Your task to perform on an android device: turn pop-ups off in chrome Image 0: 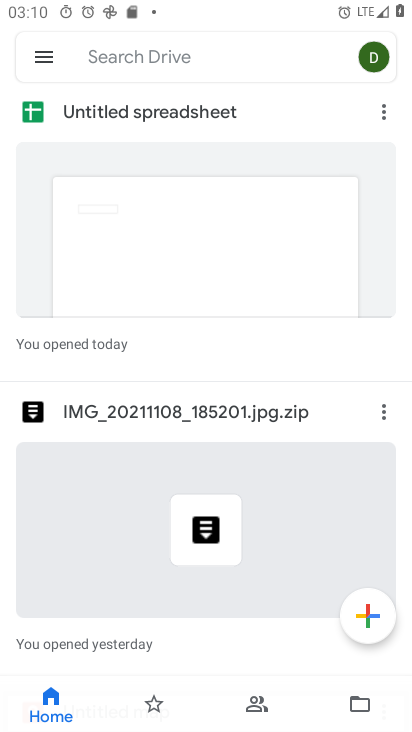
Step 0: press home button
Your task to perform on an android device: turn pop-ups off in chrome Image 1: 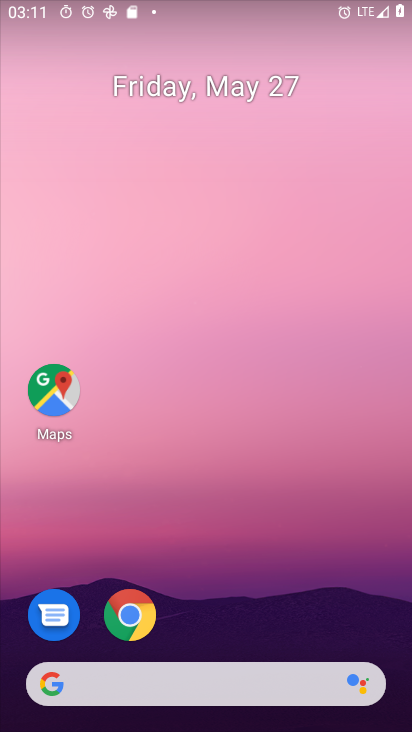
Step 1: drag from (351, 619) to (369, 317)
Your task to perform on an android device: turn pop-ups off in chrome Image 2: 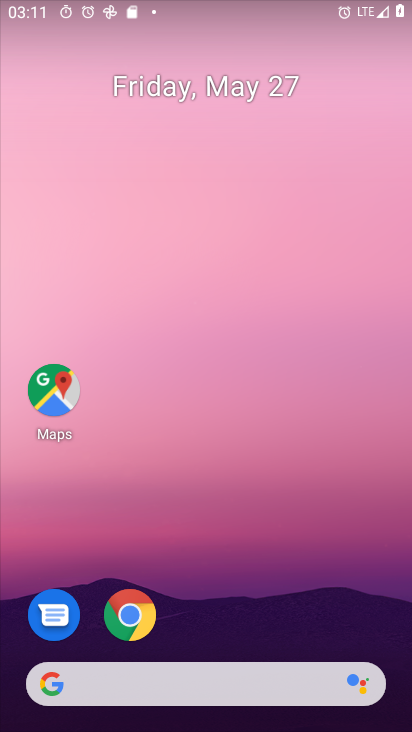
Step 2: drag from (324, 621) to (342, 235)
Your task to perform on an android device: turn pop-ups off in chrome Image 3: 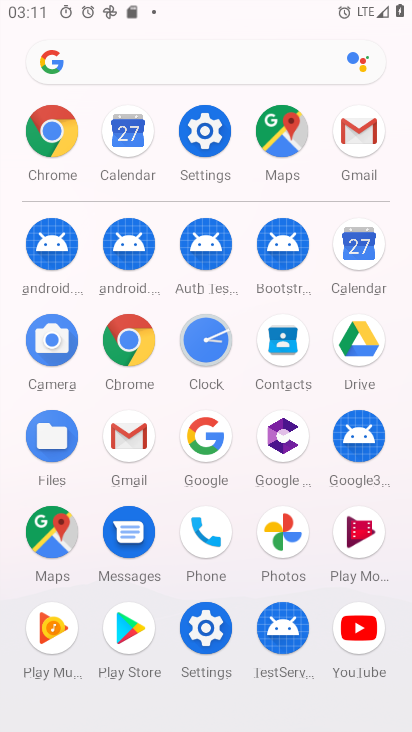
Step 3: click (146, 357)
Your task to perform on an android device: turn pop-ups off in chrome Image 4: 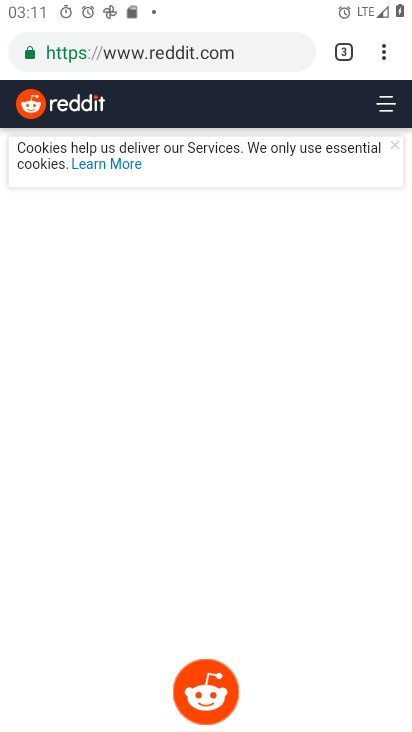
Step 4: click (384, 57)
Your task to perform on an android device: turn pop-ups off in chrome Image 5: 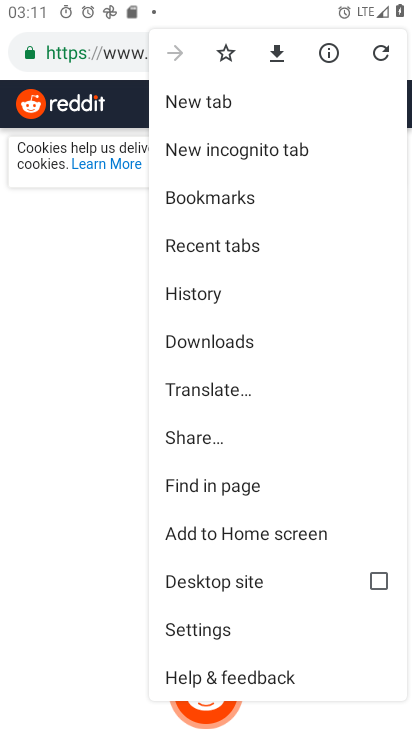
Step 5: click (230, 628)
Your task to perform on an android device: turn pop-ups off in chrome Image 6: 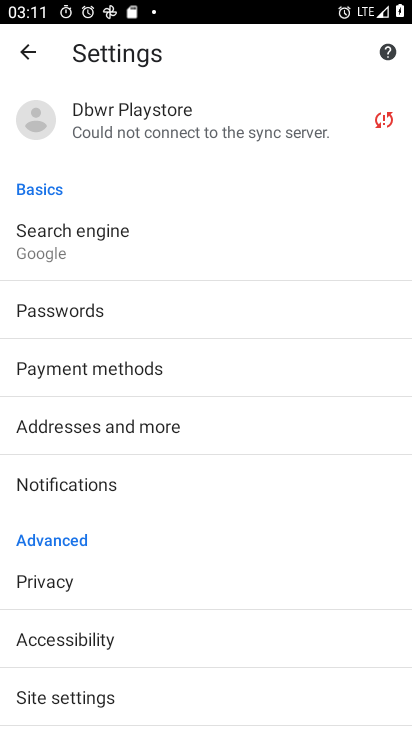
Step 6: drag from (230, 628) to (250, 524)
Your task to perform on an android device: turn pop-ups off in chrome Image 7: 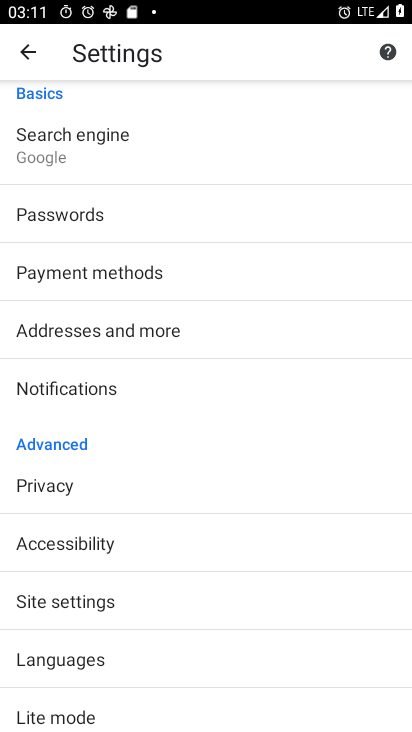
Step 7: click (252, 608)
Your task to perform on an android device: turn pop-ups off in chrome Image 8: 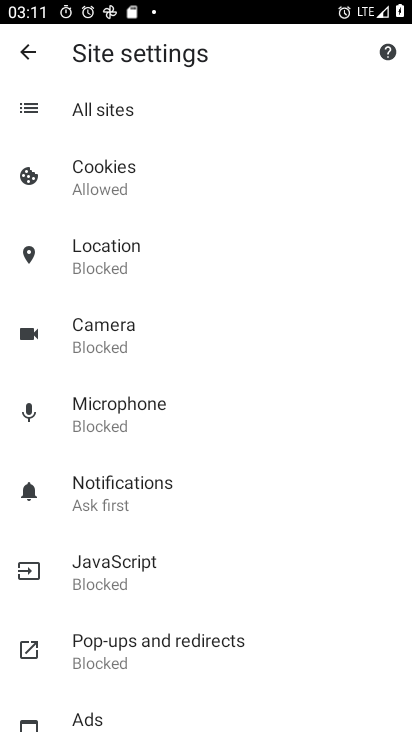
Step 8: click (280, 649)
Your task to perform on an android device: turn pop-ups off in chrome Image 9: 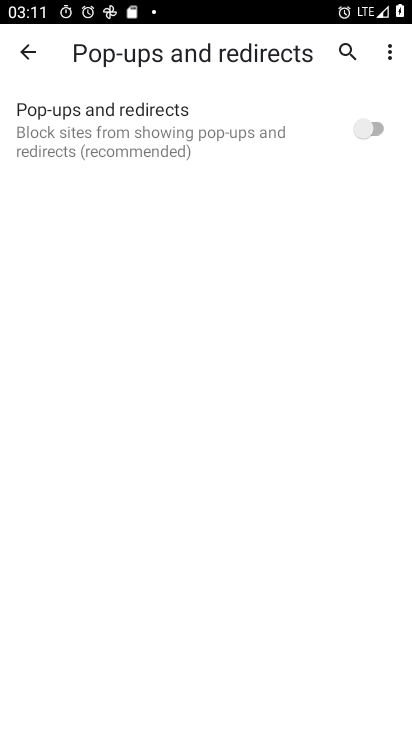
Step 9: task complete